Your task to perform on an android device: What's a goodrestaurant in Austin? Image 0: 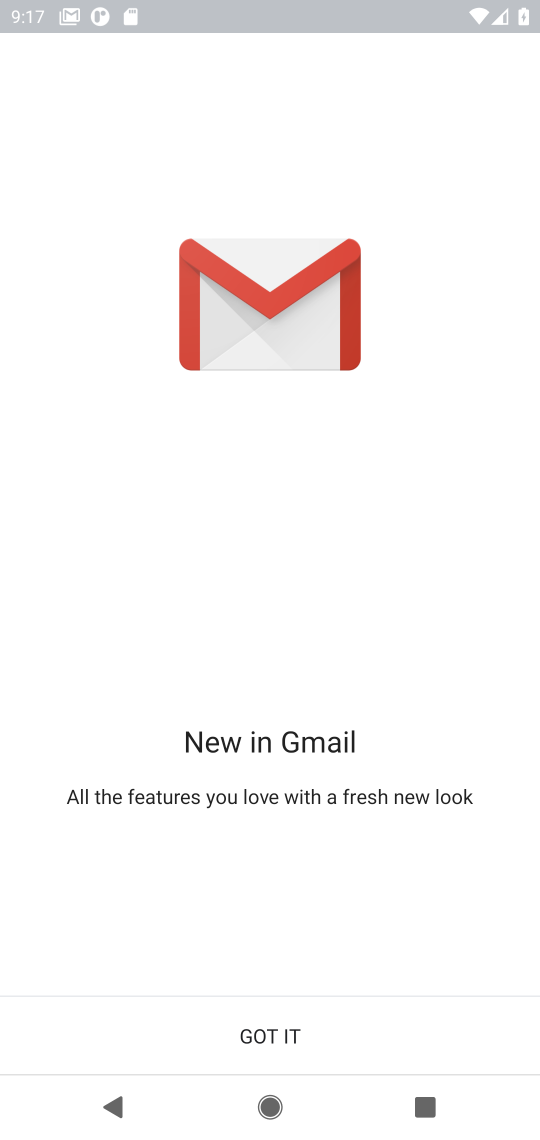
Step 0: press home button
Your task to perform on an android device: What's a goodrestaurant in Austin? Image 1: 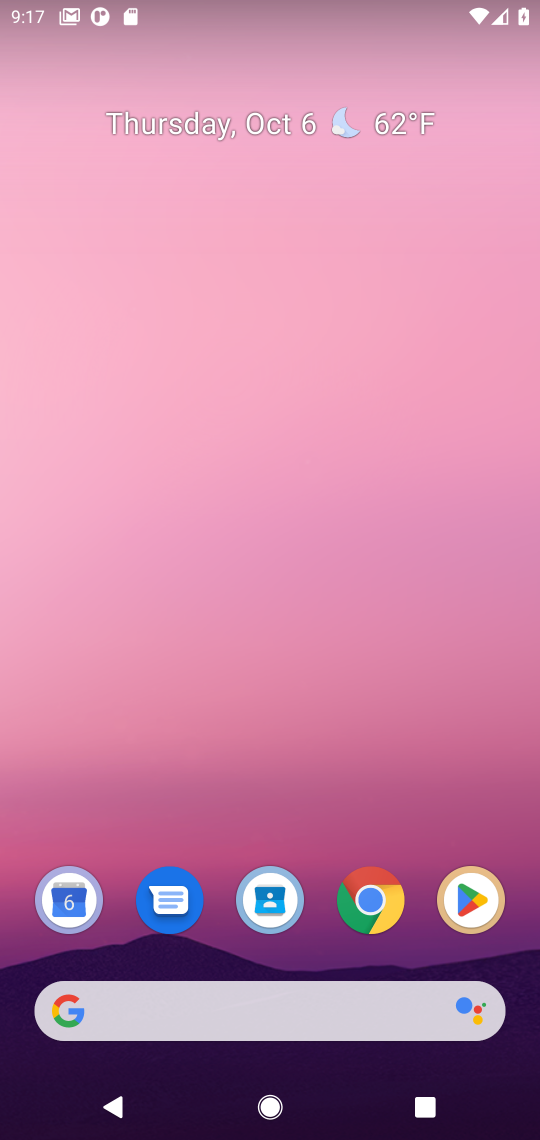
Step 1: click (242, 989)
Your task to perform on an android device: What's a goodrestaurant in Austin? Image 2: 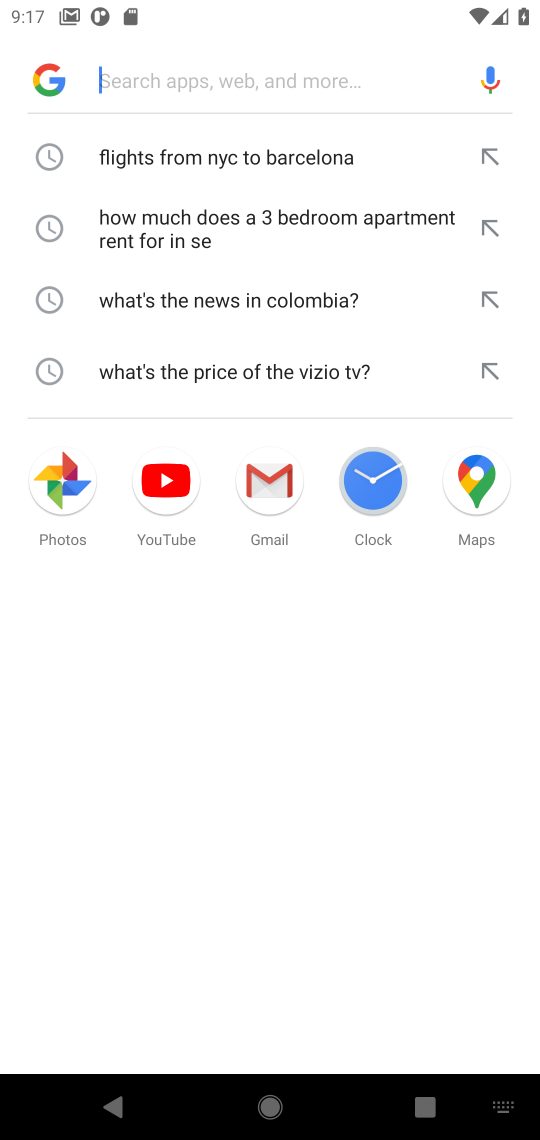
Step 2: type "What's a goodrestaurant in Austin?"
Your task to perform on an android device: What's a goodrestaurant in Austin? Image 3: 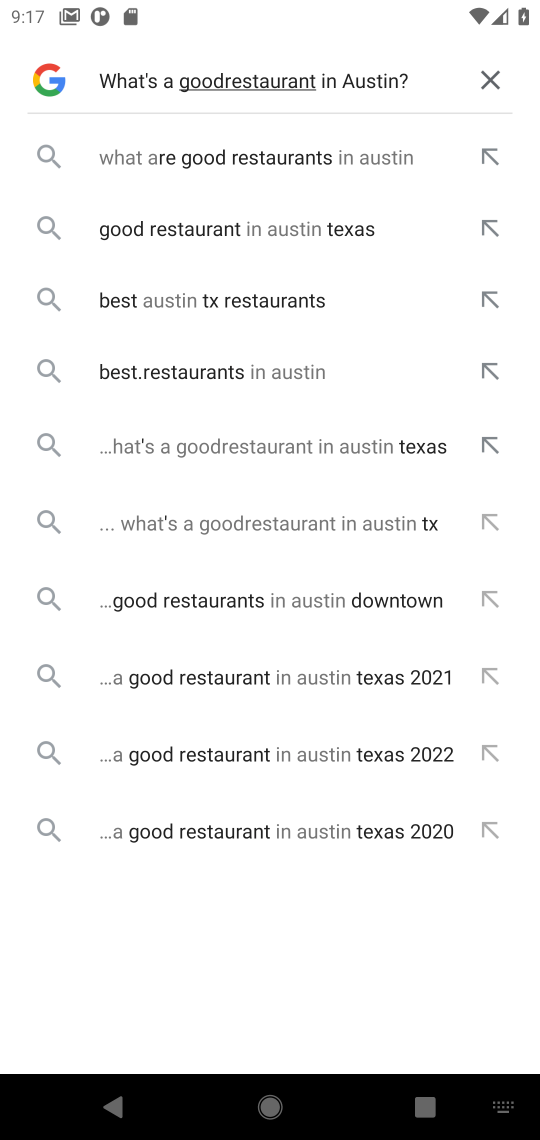
Step 3: press enter
Your task to perform on an android device: What's a goodrestaurant in Austin? Image 4: 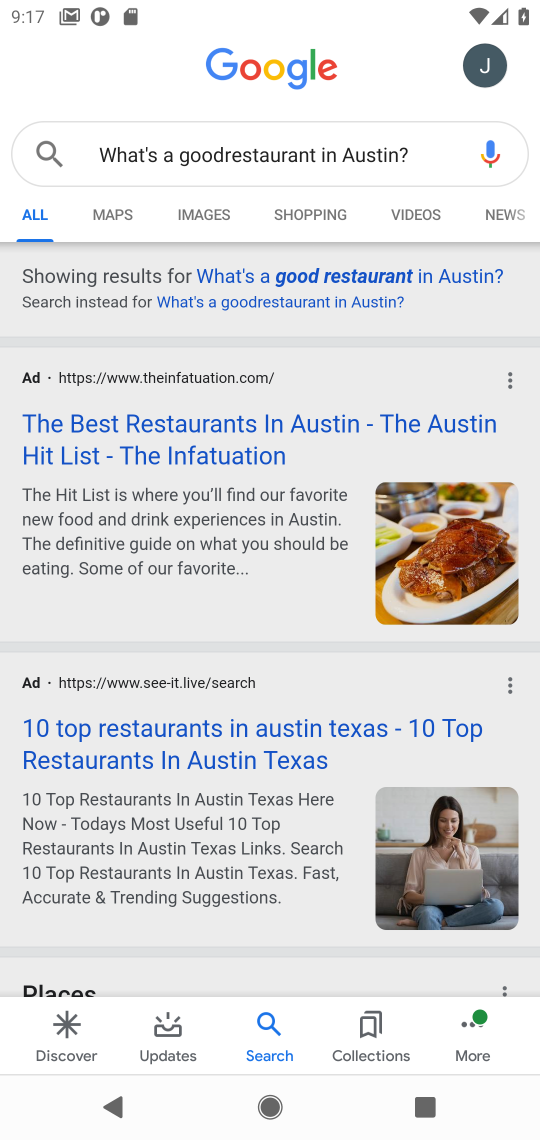
Step 4: click (428, 270)
Your task to perform on an android device: What's a goodrestaurant in Austin? Image 5: 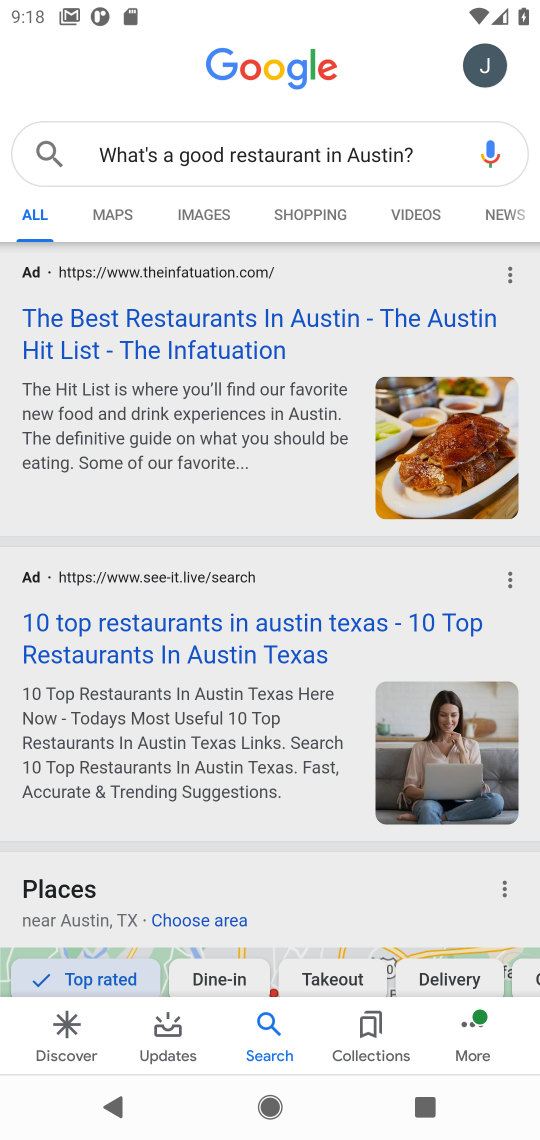
Step 5: click (222, 333)
Your task to perform on an android device: What's a goodrestaurant in Austin? Image 6: 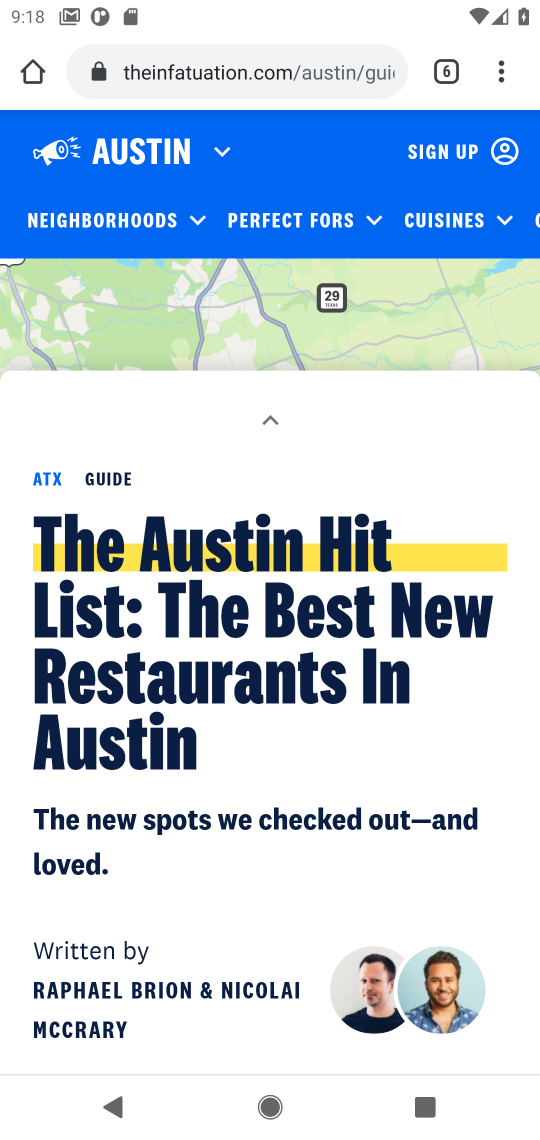
Step 6: task complete